Your task to perform on an android device: toggle notifications settings in the gmail app Image 0: 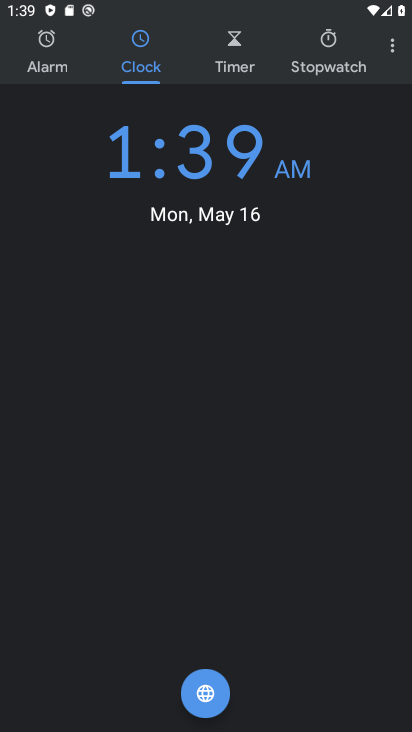
Step 0: press home button
Your task to perform on an android device: toggle notifications settings in the gmail app Image 1: 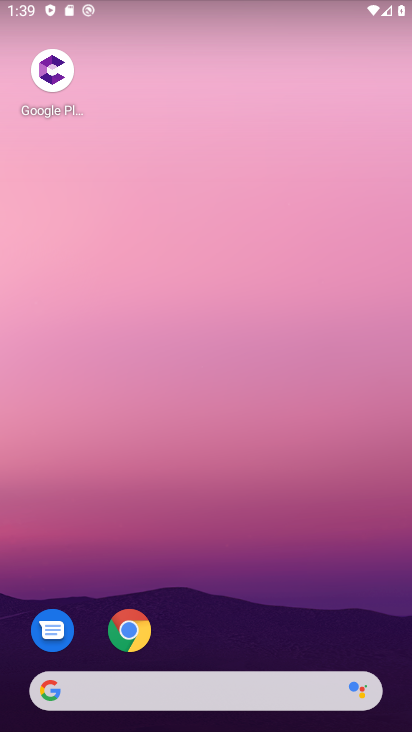
Step 1: drag from (345, 606) to (322, 183)
Your task to perform on an android device: toggle notifications settings in the gmail app Image 2: 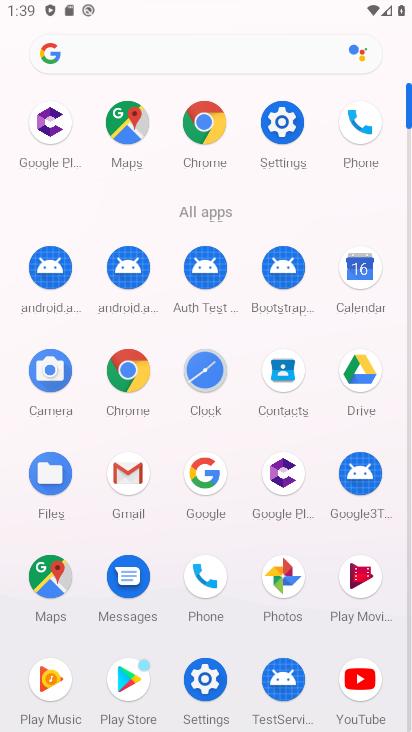
Step 2: click (107, 478)
Your task to perform on an android device: toggle notifications settings in the gmail app Image 3: 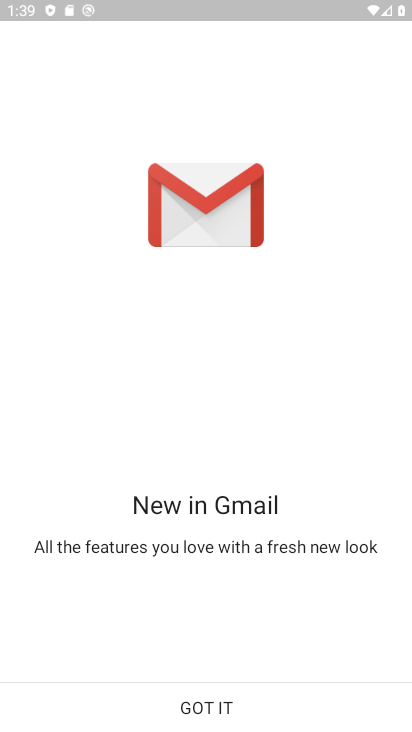
Step 3: click (225, 710)
Your task to perform on an android device: toggle notifications settings in the gmail app Image 4: 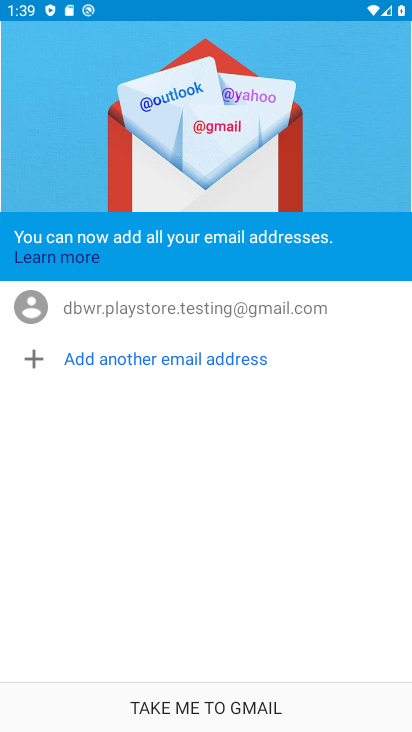
Step 4: click (225, 710)
Your task to perform on an android device: toggle notifications settings in the gmail app Image 5: 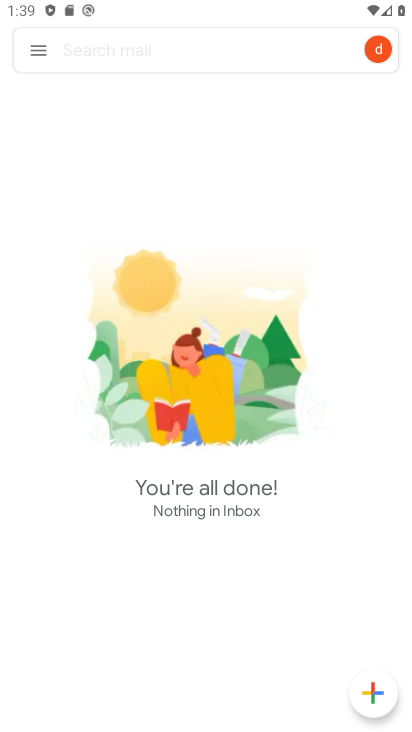
Step 5: click (27, 53)
Your task to perform on an android device: toggle notifications settings in the gmail app Image 6: 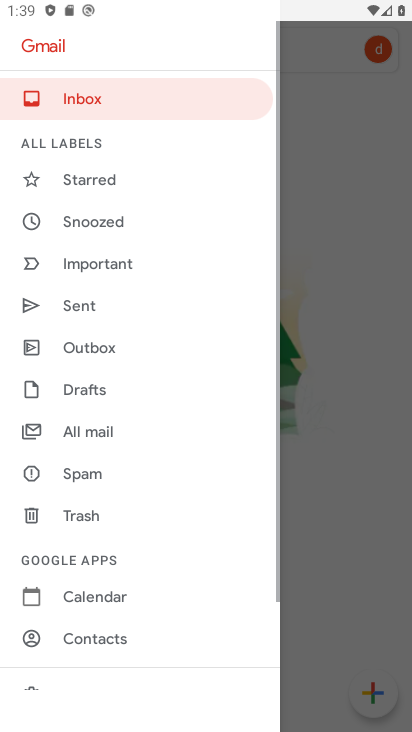
Step 6: drag from (171, 639) to (243, 221)
Your task to perform on an android device: toggle notifications settings in the gmail app Image 7: 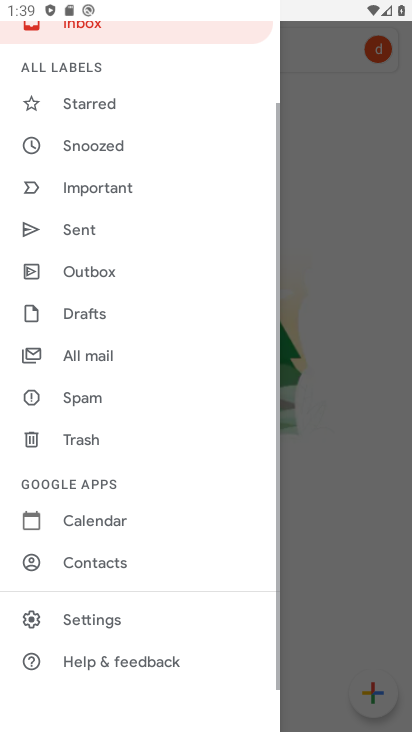
Step 7: click (167, 605)
Your task to perform on an android device: toggle notifications settings in the gmail app Image 8: 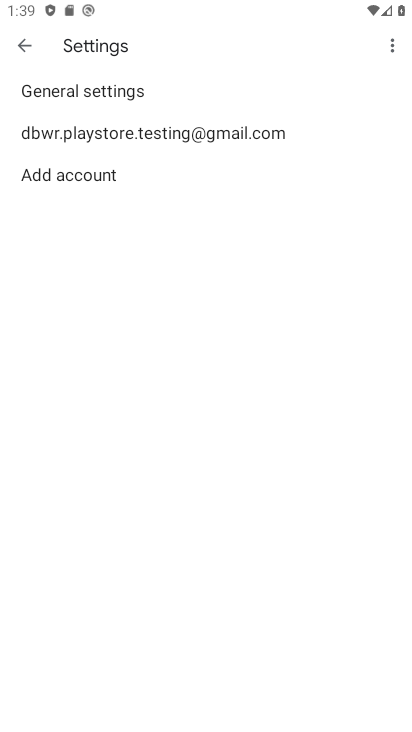
Step 8: click (254, 137)
Your task to perform on an android device: toggle notifications settings in the gmail app Image 9: 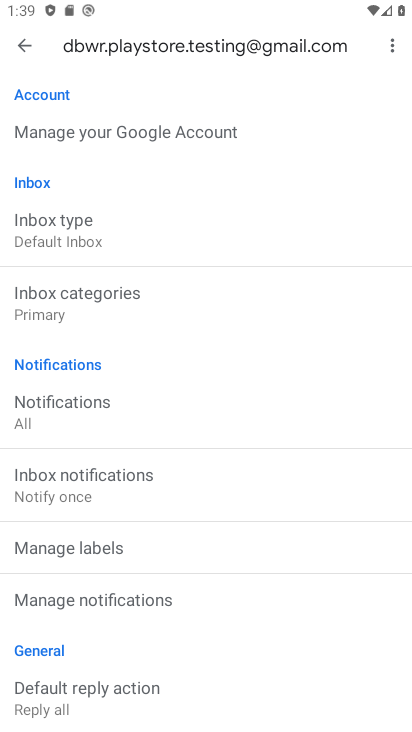
Step 9: click (76, 403)
Your task to perform on an android device: toggle notifications settings in the gmail app Image 10: 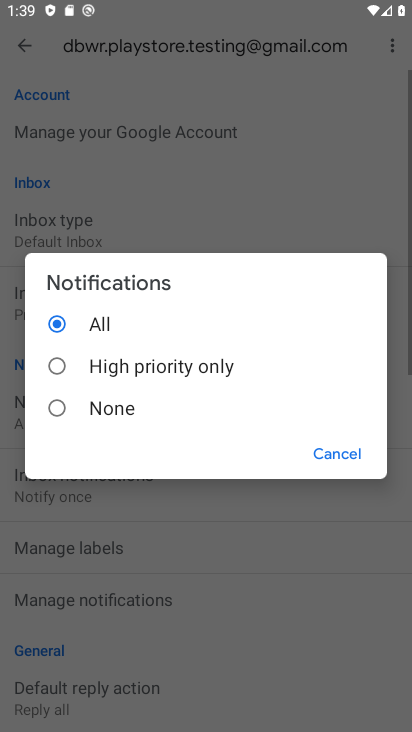
Step 10: click (113, 404)
Your task to perform on an android device: toggle notifications settings in the gmail app Image 11: 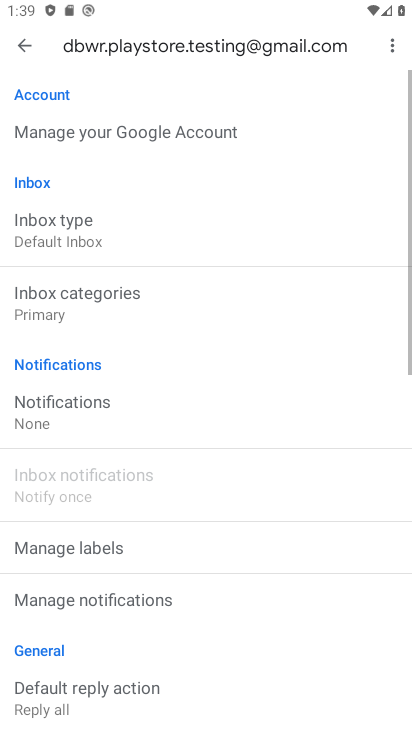
Step 11: task complete